Your task to perform on an android device: Open network settings Image 0: 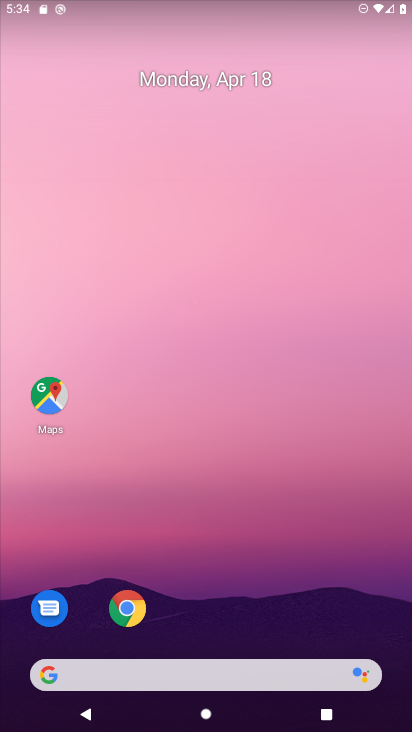
Step 0: drag from (411, 656) to (319, 14)
Your task to perform on an android device: Open network settings Image 1: 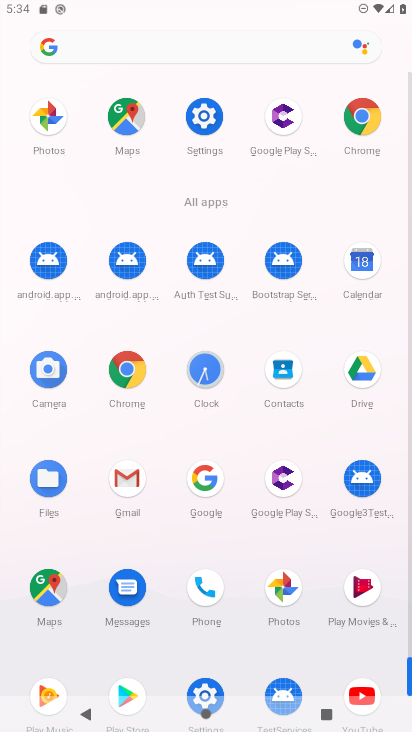
Step 1: click (204, 113)
Your task to perform on an android device: Open network settings Image 2: 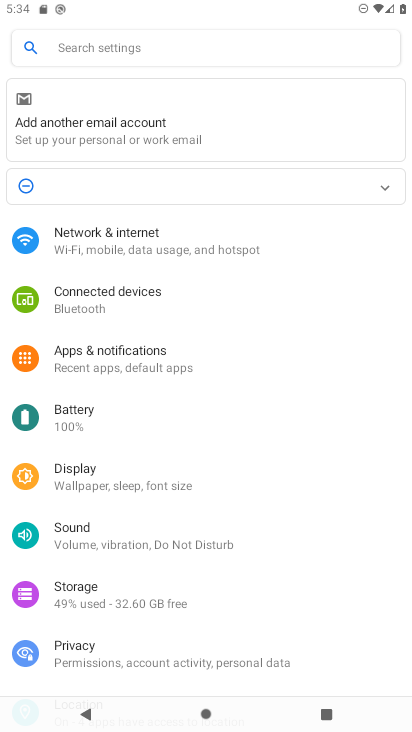
Step 2: click (145, 238)
Your task to perform on an android device: Open network settings Image 3: 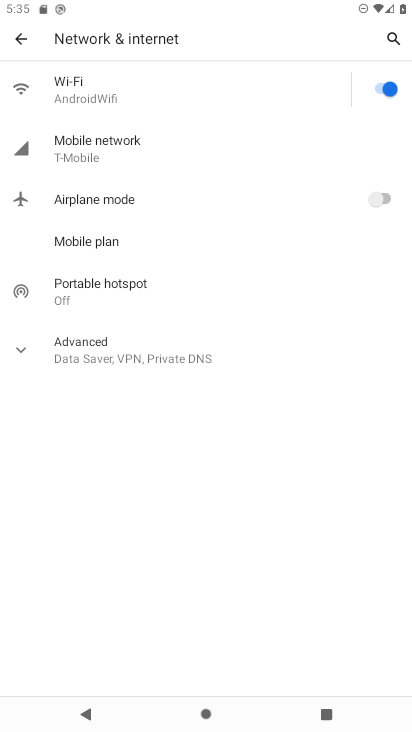
Step 3: task complete